Your task to perform on an android device: Open Yahoo.com Image 0: 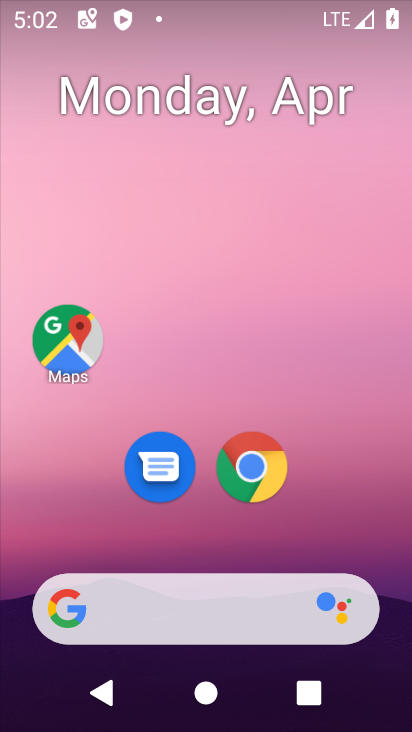
Step 0: drag from (340, 560) to (374, 5)
Your task to perform on an android device: Open Yahoo.com Image 1: 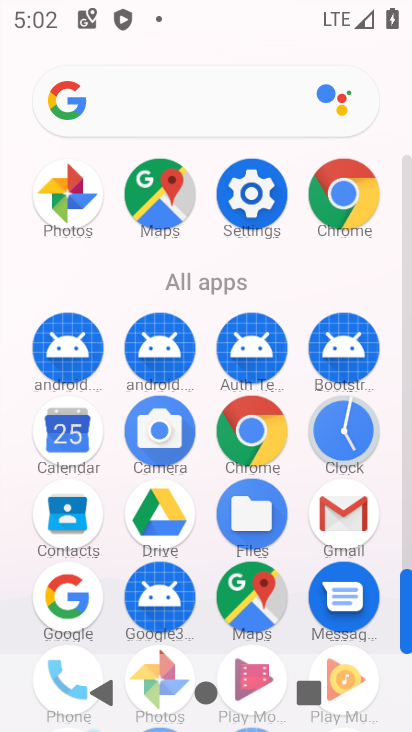
Step 1: click (253, 433)
Your task to perform on an android device: Open Yahoo.com Image 2: 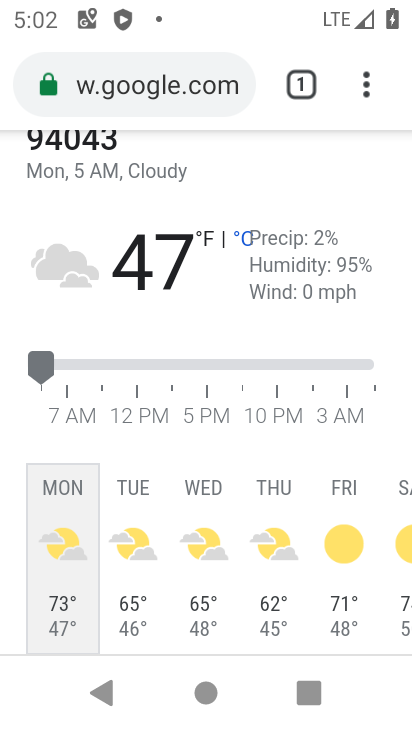
Step 2: click (361, 77)
Your task to perform on an android device: Open Yahoo.com Image 3: 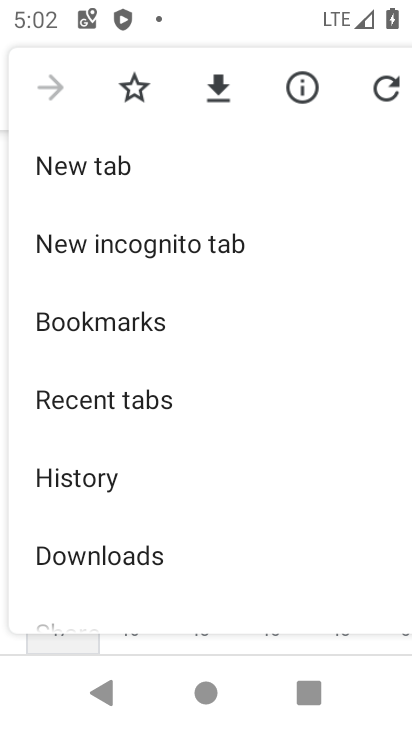
Step 3: click (271, 179)
Your task to perform on an android device: Open Yahoo.com Image 4: 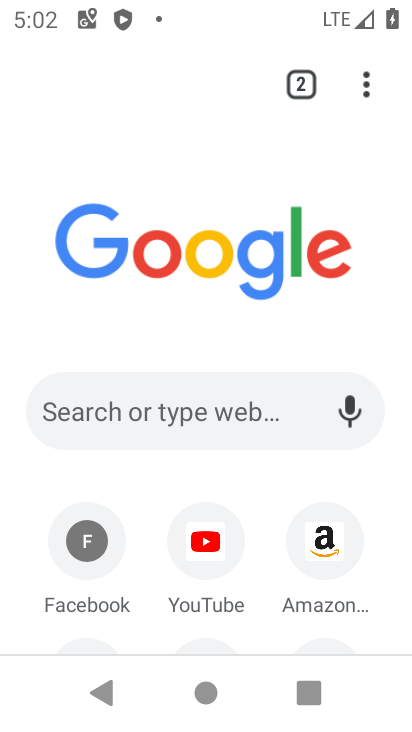
Step 4: drag from (379, 602) to (362, 185)
Your task to perform on an android device: Open Yahoo.com Image 5: 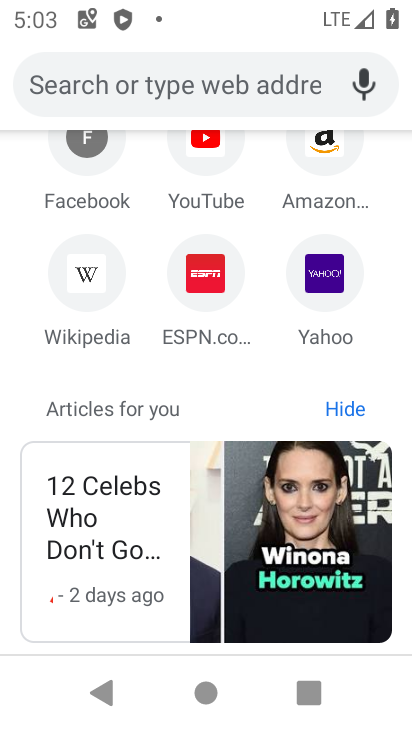
Step 5: click (326, 270)
Your task to perform on an android device: Open Yahoo.com Image 6: 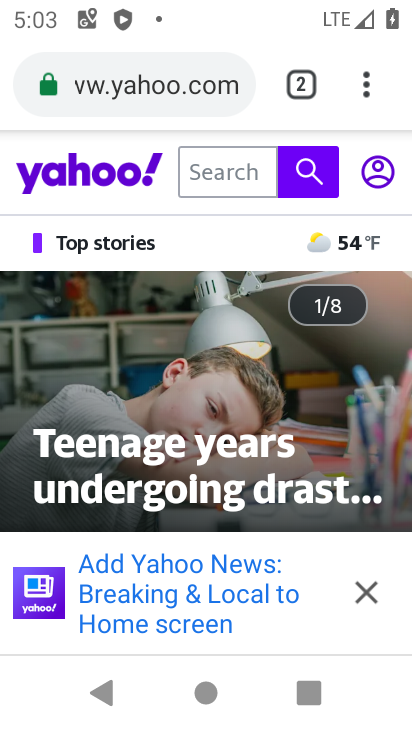
Step 6: task complete